Your task to perform on an android device: Open network settings Image 0: 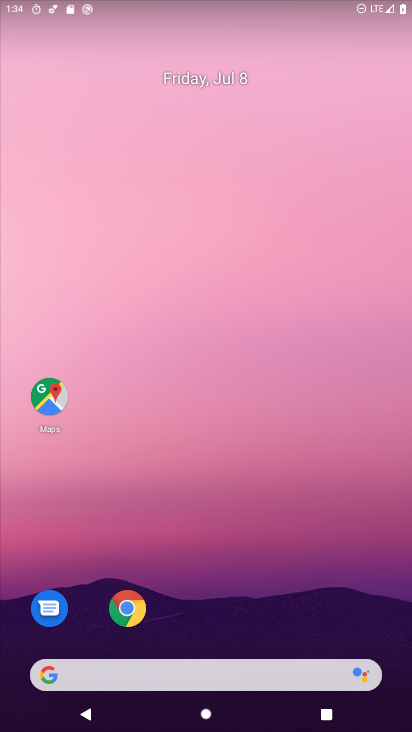
Step 0: drag from (253, 713) to (253, 160)
Your task to perform on an android device: Open network settings Image 1: 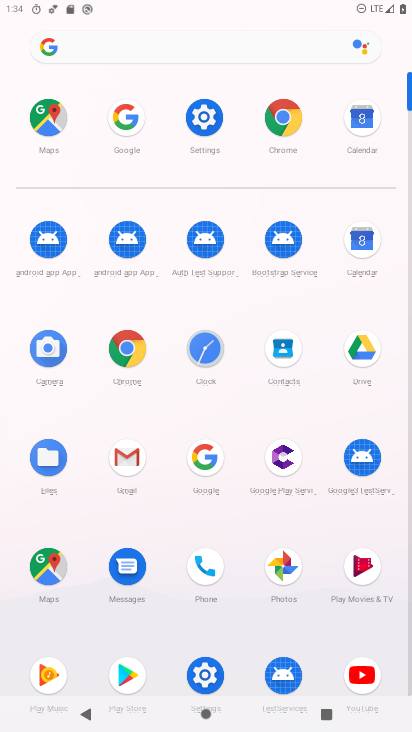
Step 1: click (201, 116)
Your task to perform on an android device: Open network settings Image 2: 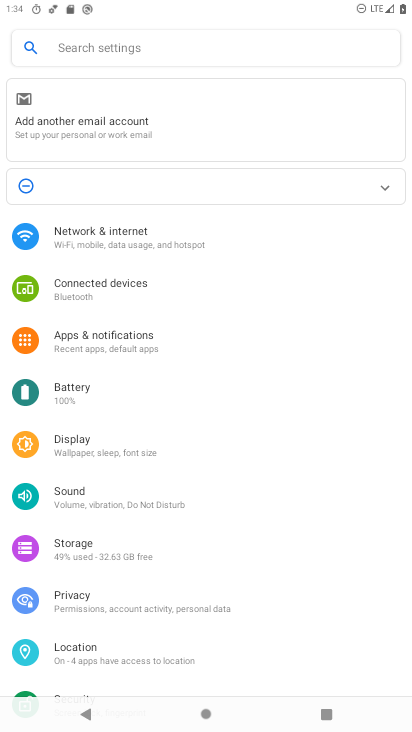
Step 2: click (94, 229)
Your task to perform on an android device: Open network settings Image 3: 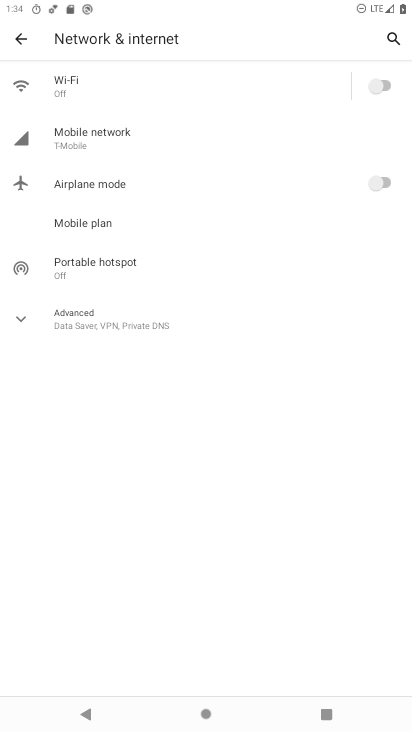
Step 3: task complete